Your task to perform on an android device: install app "Google Play Games" Image 0: 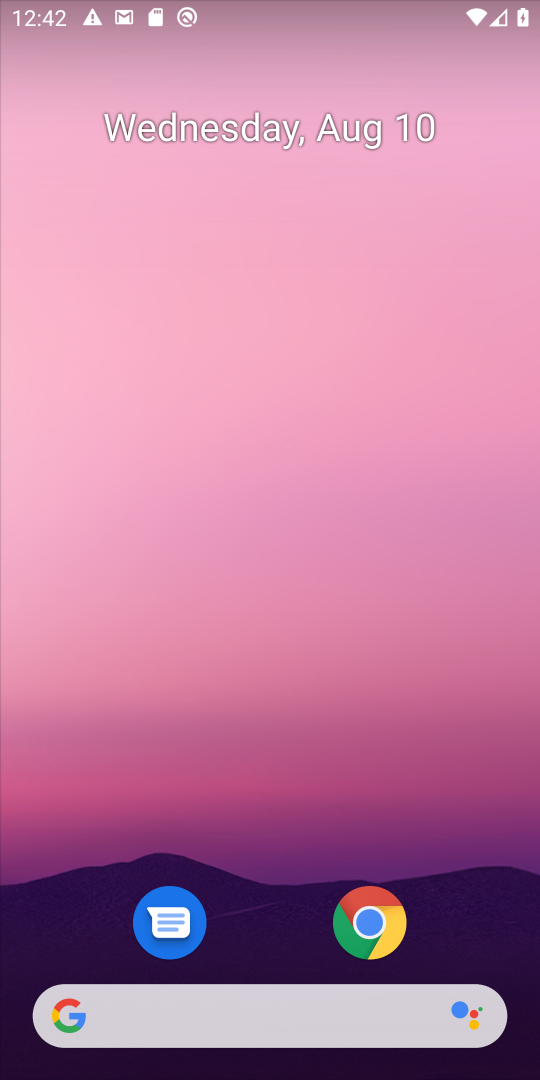
Step 0: drag from (256, 879) to (212, 62)
Your task to perform on an android device: install app "Google Play Games" Image 1: 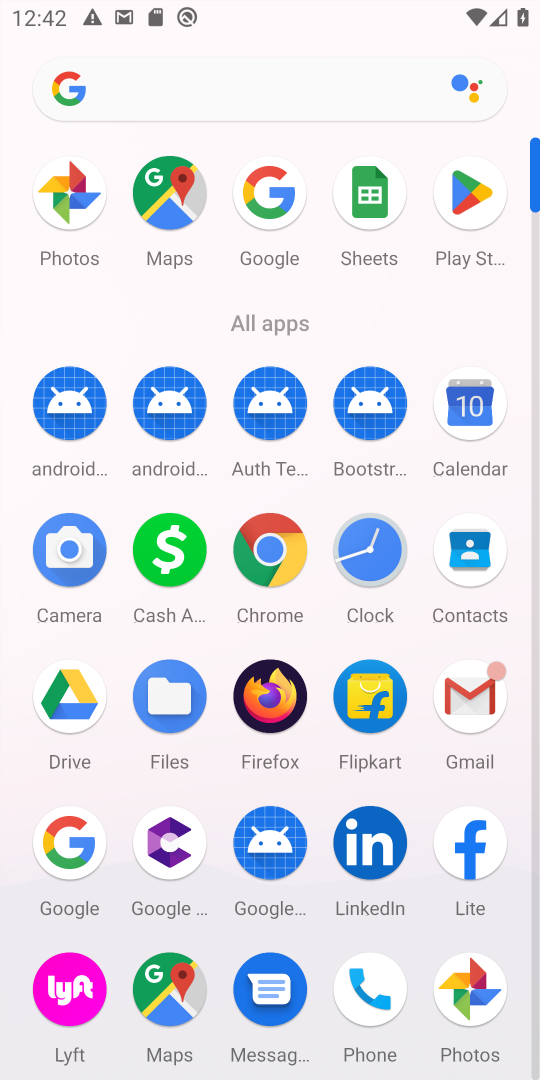
Step 1: click (464, 200)
Your task to perform on an android device: install app "Google Play Games" Image 2: 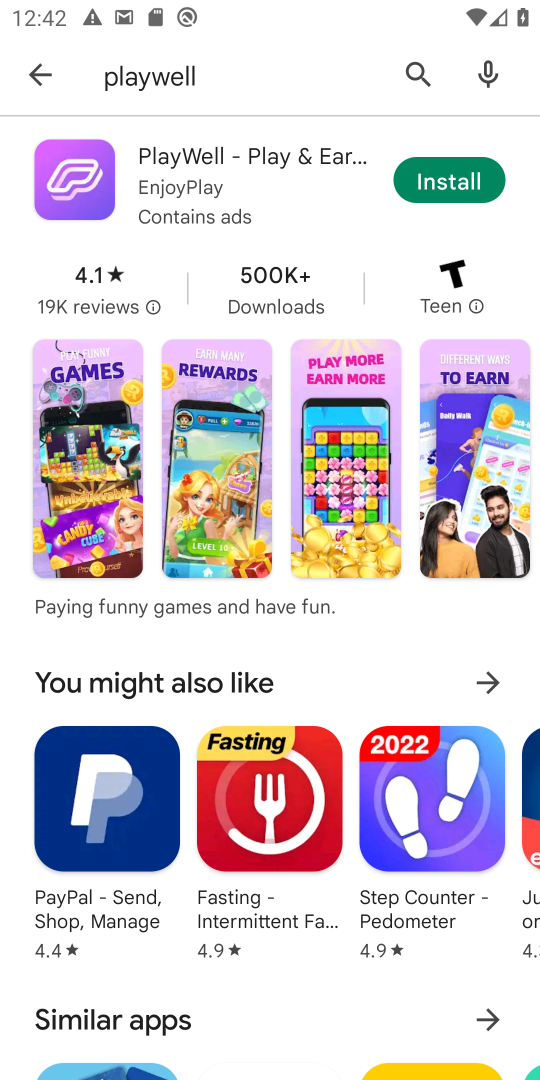
Step 2: click (42, 75)
Your task to perform on an android device: install app "Google Play Games" Image 3: 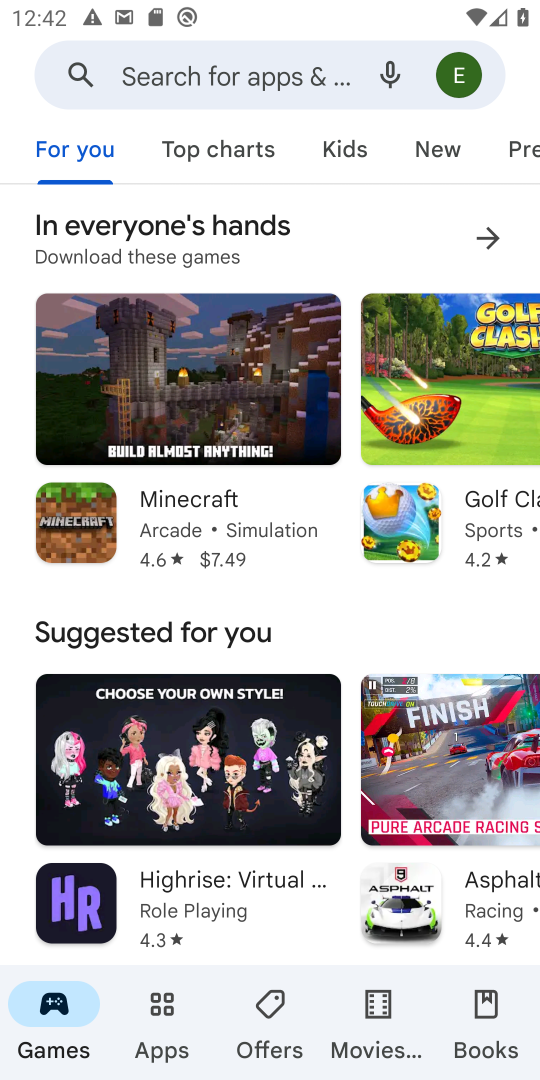
Step 3: click (247, 66)
Your task to perform on an android device: install app "Google Play Games" Image 4: 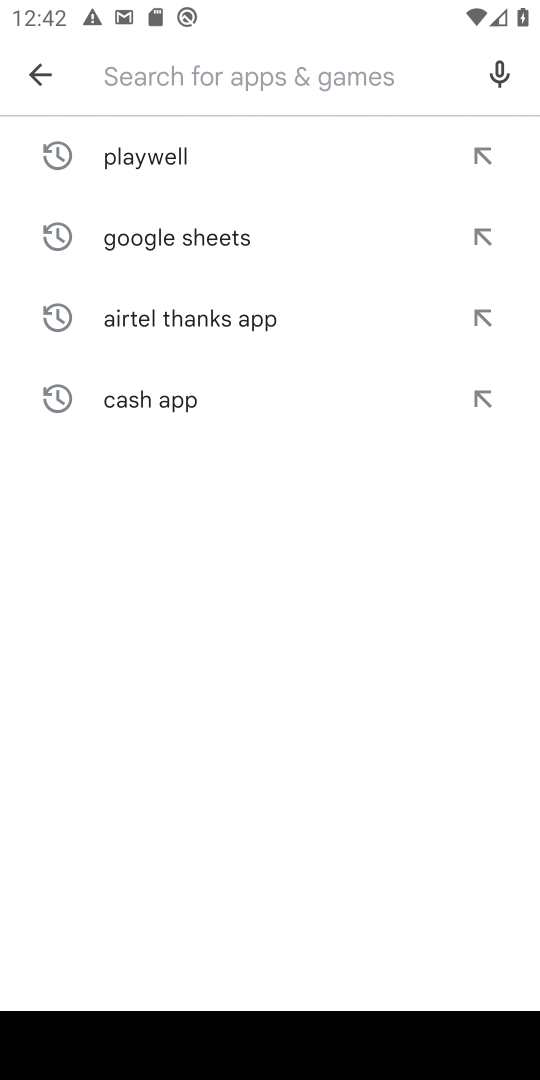
Step 4: type "Google Play Games"
Your task to perform on an android device: install app "Google Play Games" Image 5: 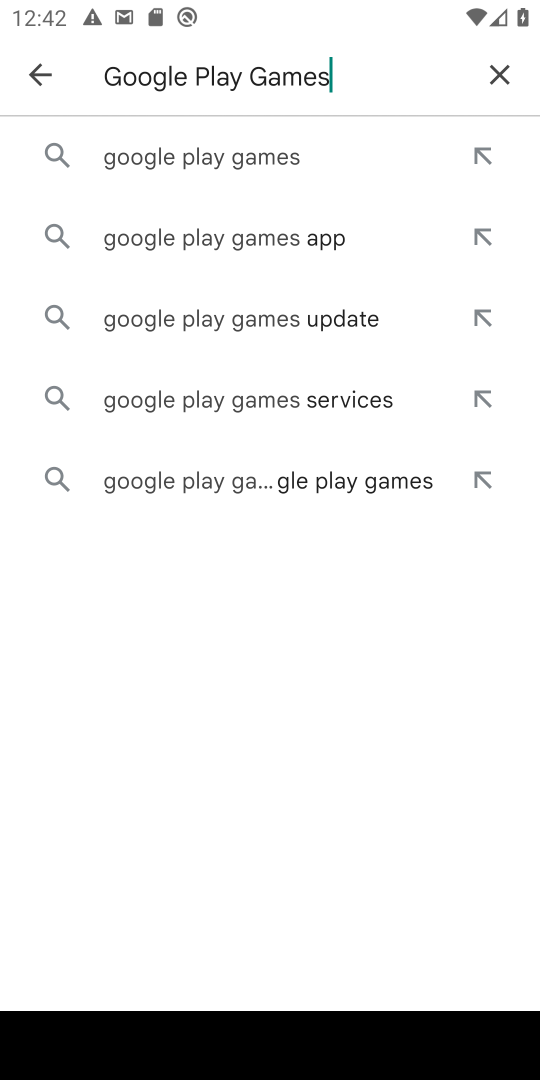
Step 5: click (232, 156)
Your task to perform on an android device: install app "Google Play Games" Image 6: 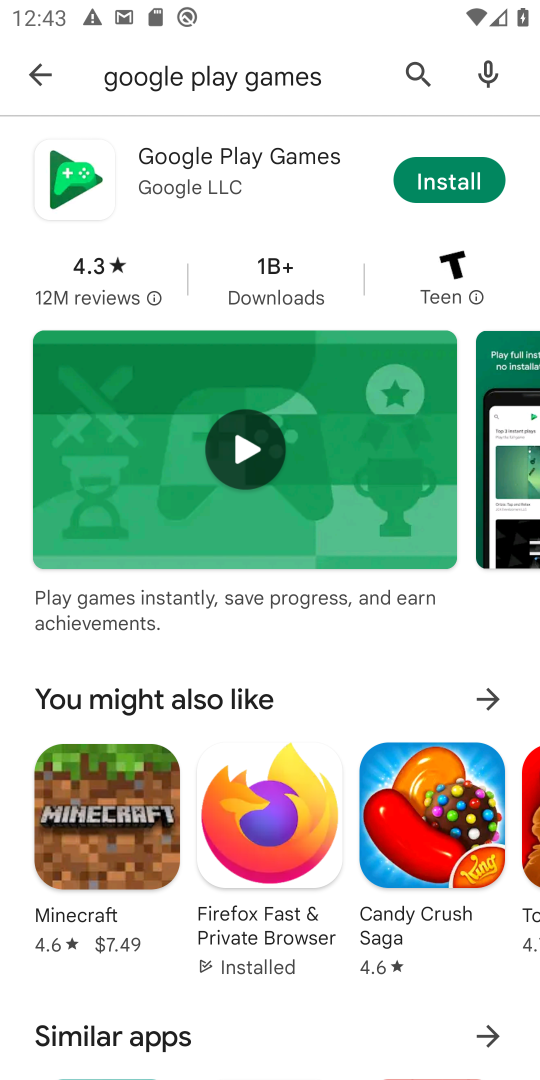
Step 6: click (436, 189)
Your task to perform on an android device: install app "Google Play Games" Image 7: 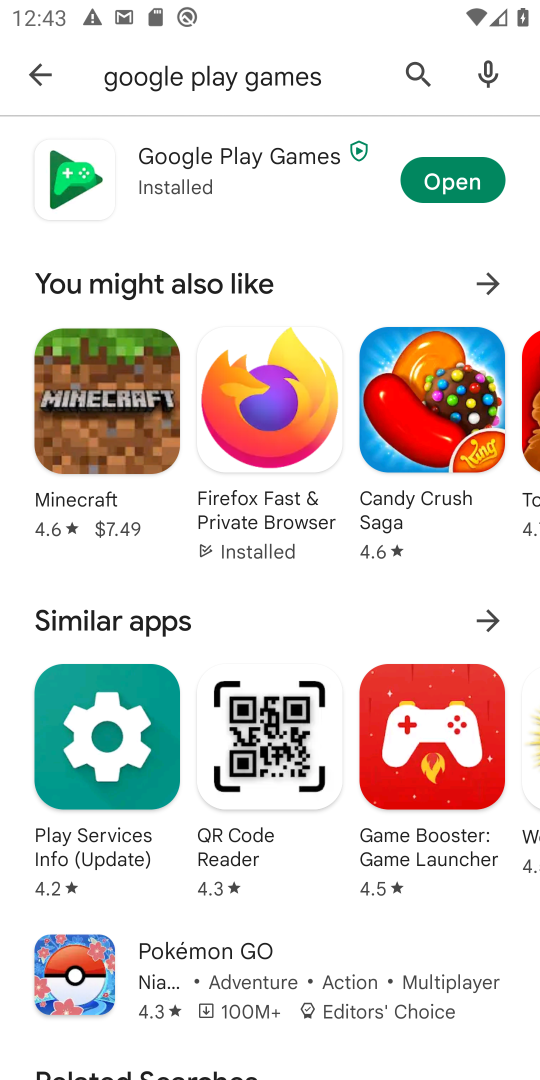
Step 7: click (436, 189)
Your task to perform on an android device: install app "Google Play Games" Image 8: 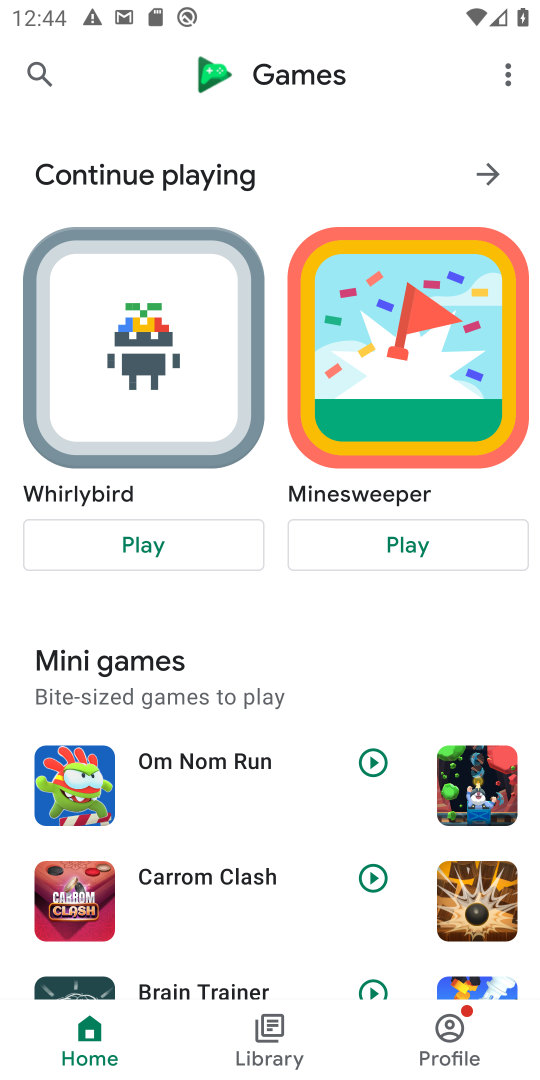
Step 8: task complete